Your task to perform on an android device: clear all cookies in the chrome app Image 0: 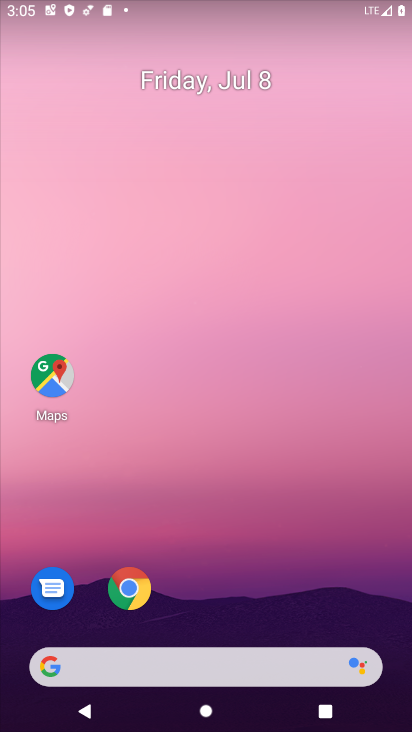
Step 0: click (124, 589)
Your task to perform on an android device: clear all cookies in the chrome app Image 1: 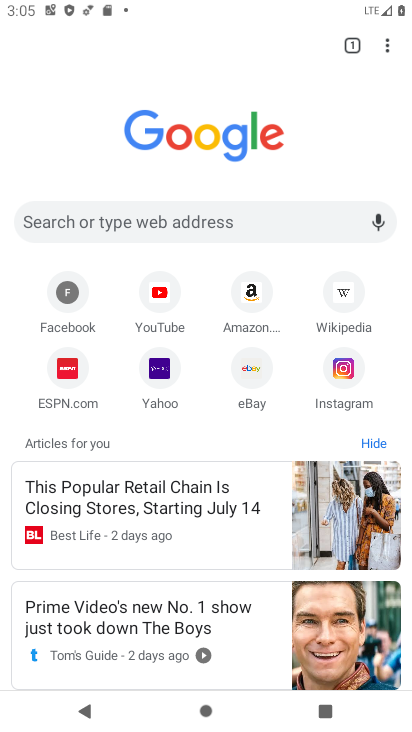
Step 1: drag from (388, 42) to (243, 374)
Your task to perform on an android device: clear all cookies in the chrome app Image 2: 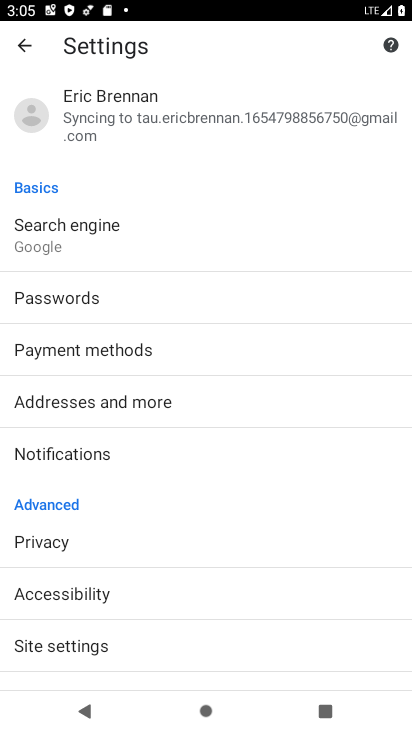
Step 2: click (64, 535)
Your task to perform on an android device: clear all cookies in the chrome app Image 3: 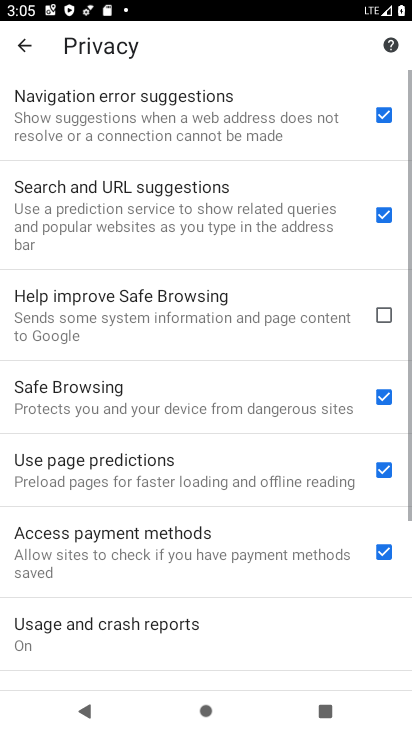
Step 3: drag from (181, 611) to (289, 97)
Your task to perform on an android device: clear all cookies in the chrome app Image 4: 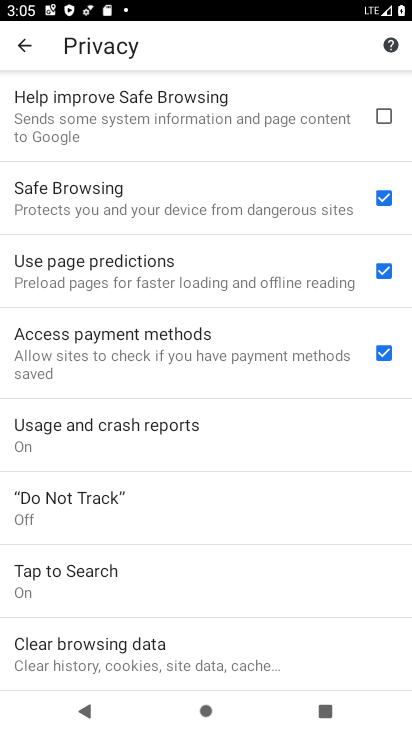
Step 4: click (153, 650)
Your task to perform on an android device: clear all cookies in the chrome app Image 5: 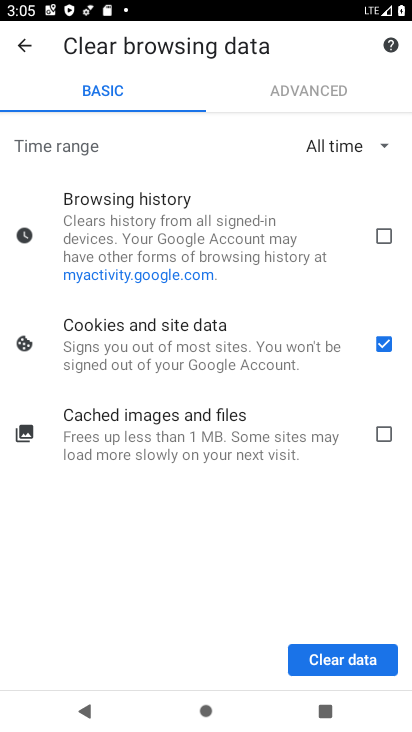
Step 5: click (332, 664)
Your task to perform on an android device: clear all cookies in the chrome app Image 6: 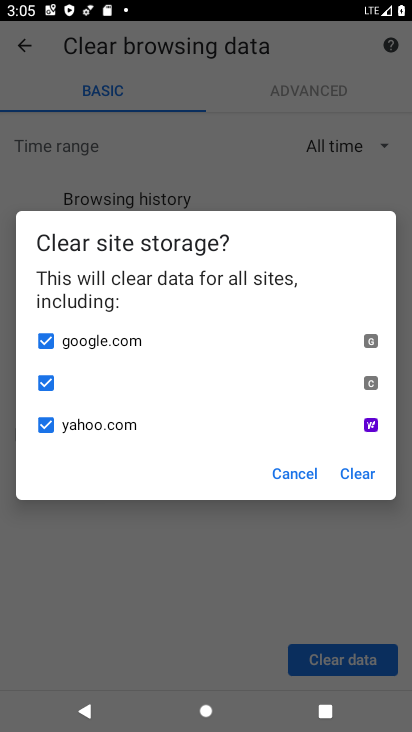
Step 6: click (346, 472)
Your task to perform on an android device: clear all cookies in the chrome app Image 7: 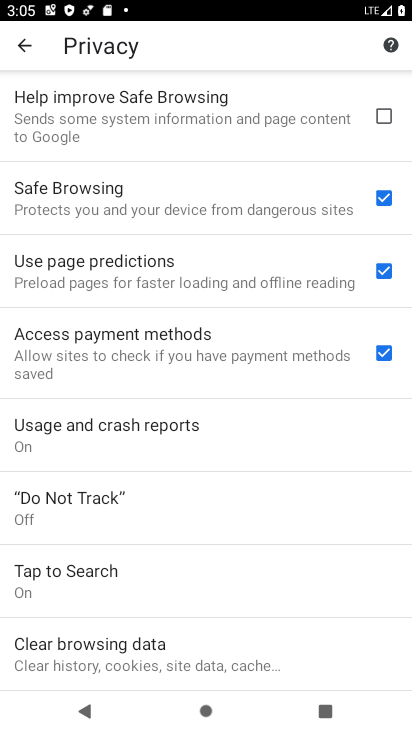
Step 7: task complete